Your task to perform on an android device: change timer sound Image 0: 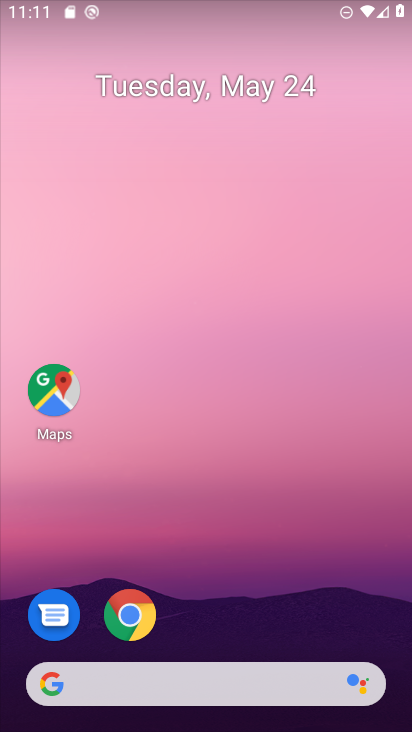
Step 0: press home button
Your task to perform on an android device: change timer sound Image 1: 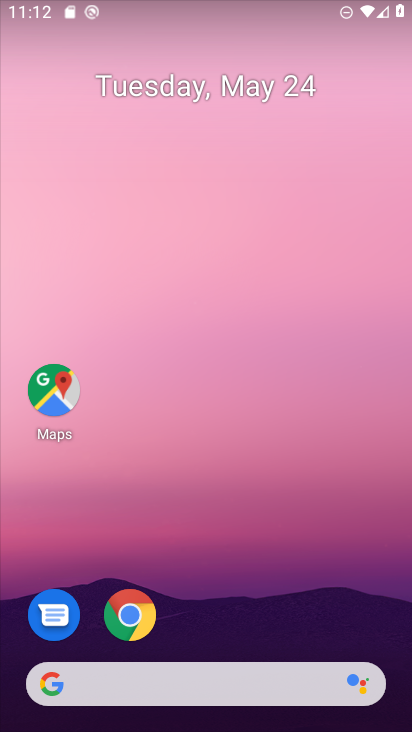
Step 1: drag from (328, 712) to (348, 15)
Your task to perform on an android device: change timer sound Image 2: 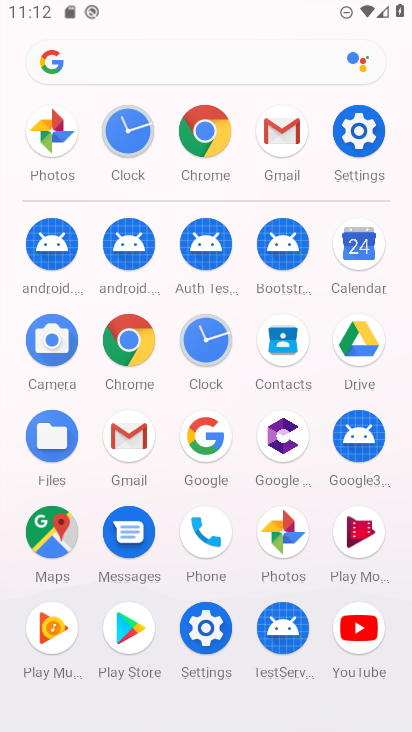
Step 2: click (138, 127)
Your task to perform on an android device: change timer sound Image 3: 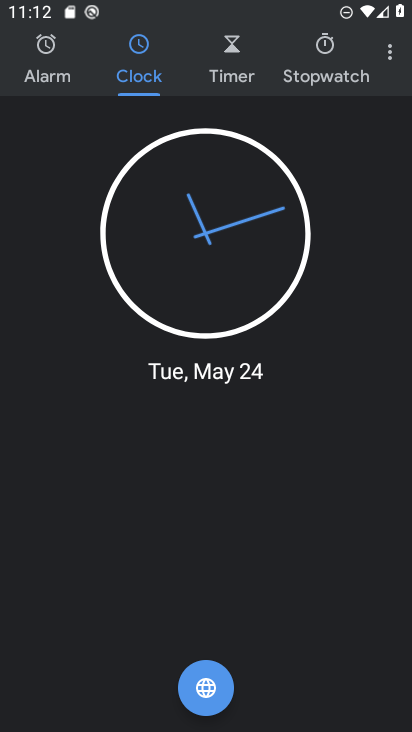
Step 3: click (384, 66)
Your task to perform on an android device: change timer sound Image 4: 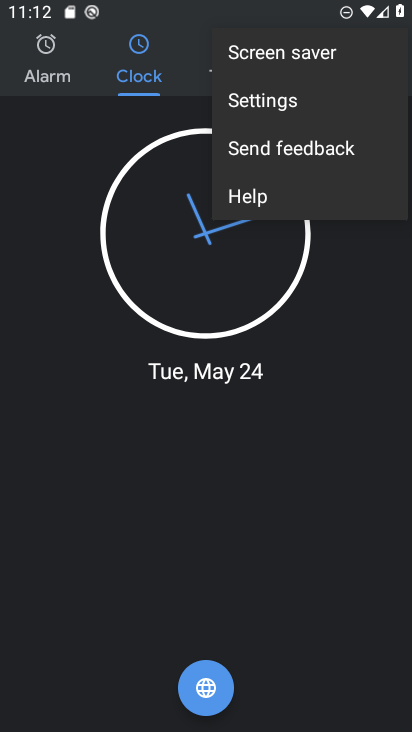
Step 4: click (269, 104)
Your task to perform on an android device: change timer sound Image 5: 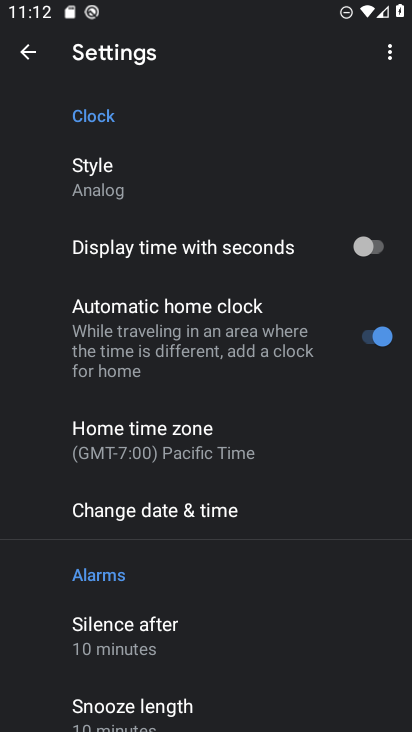
Step 5: drag from (206, 604) to (256, 97)
Your task to perform on an android device: change timer sound Image 6: 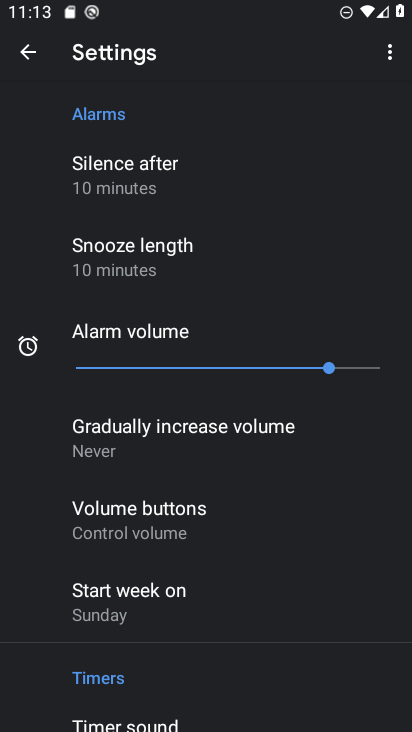
Step 6: drag from (202, 588) to (230, 475)
Your task to perform on an android device: change timer sound Image 7: 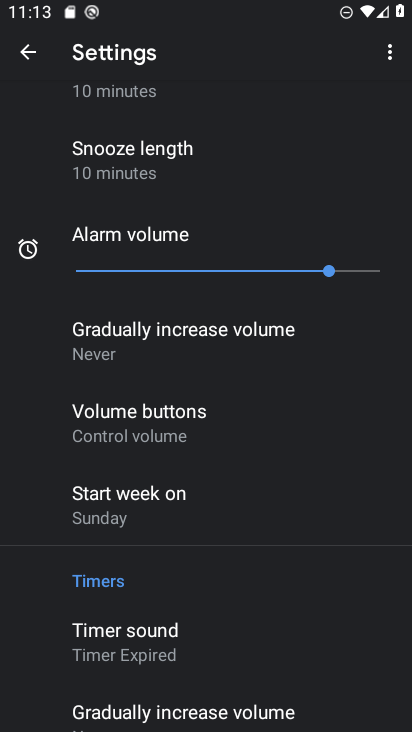
Step 7: click (187, 645)
Your task to perform on an android device: change timer sound Image 8: 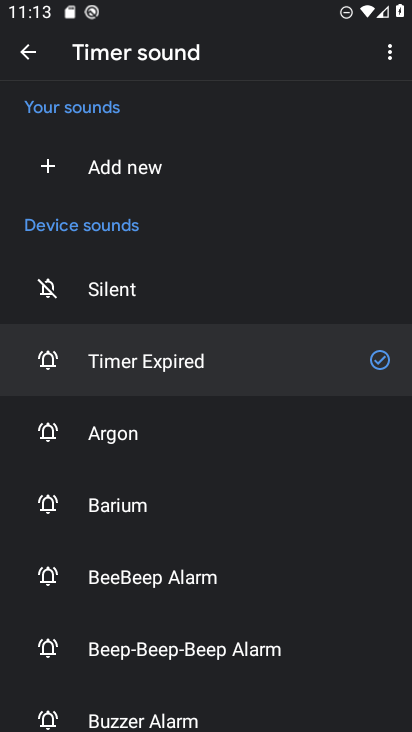
Step 8: click (152, 512)
Your task to perform on an android device: change timer sound Image 9: 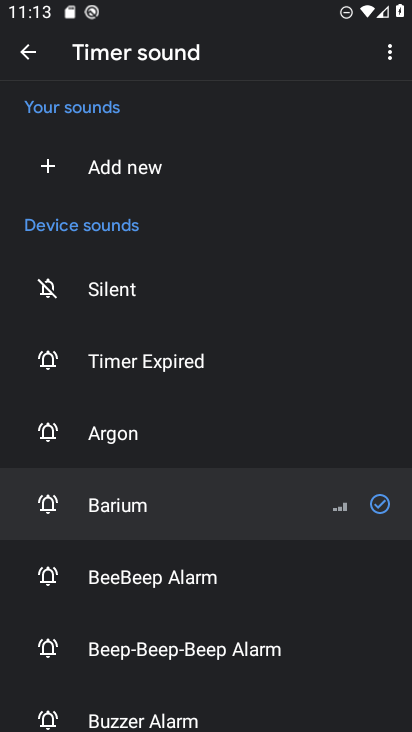
Step 9: task complete